Your task to perform on an android device: Open sound settings Image 0: 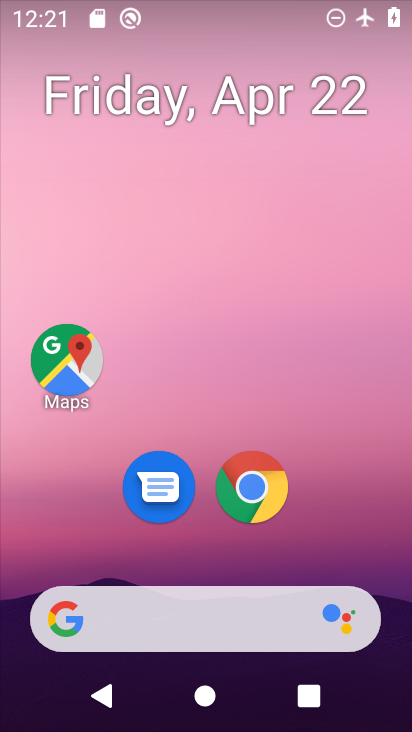
Step 0: drag from (337, 491) to (335, 115)
Your task to perform on an android device: Open sound settings Image 1: 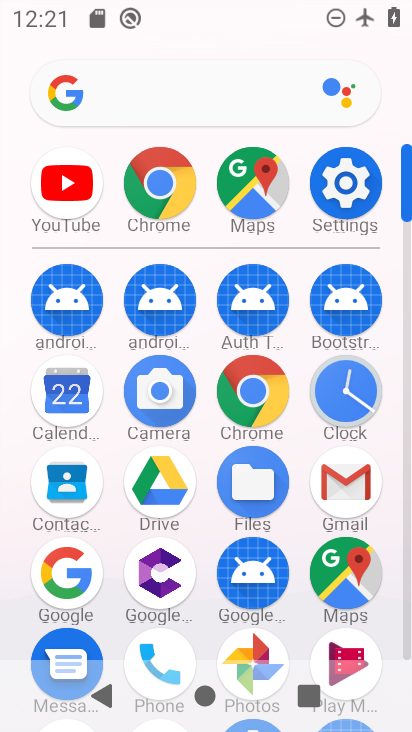
Step 1: click (342, 196)
Your task to perform on an android device: Open sound settings Image 2: 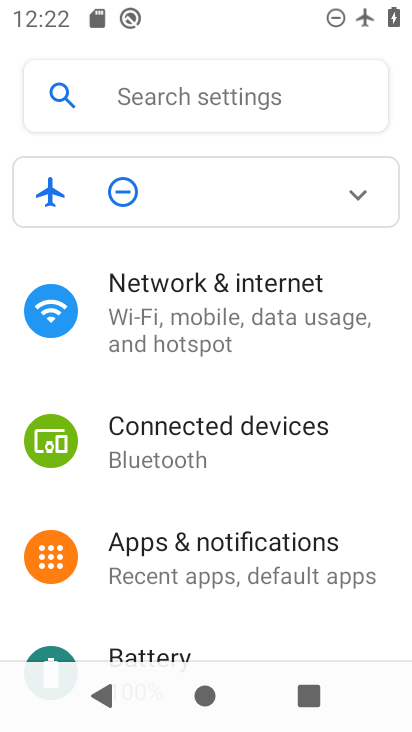
Step 2: drag from (322, 583) to (333, 280)
Your task to perform on an android device: Open sound settings Image 3: 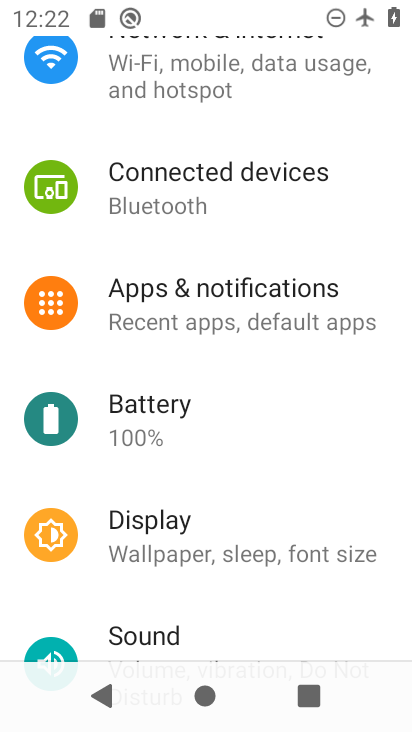
Step 3: drag from (236, 558) to (280, 297)
Your task to perform on an android device: Open sound settings Image 4: 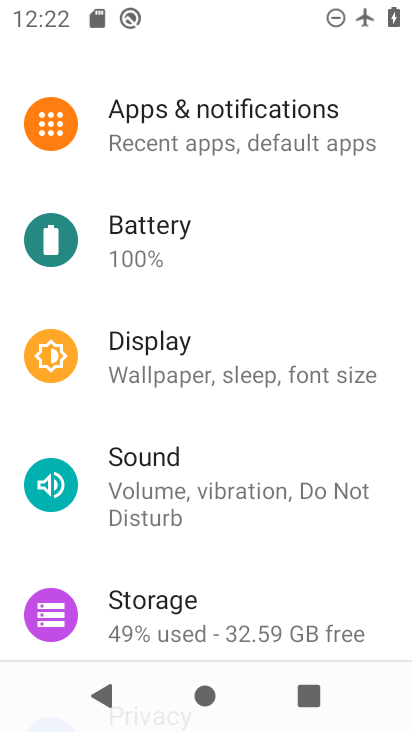
Step 4: click (204, 468)
Your task to perform on an android device: Open sound settings Image 5: 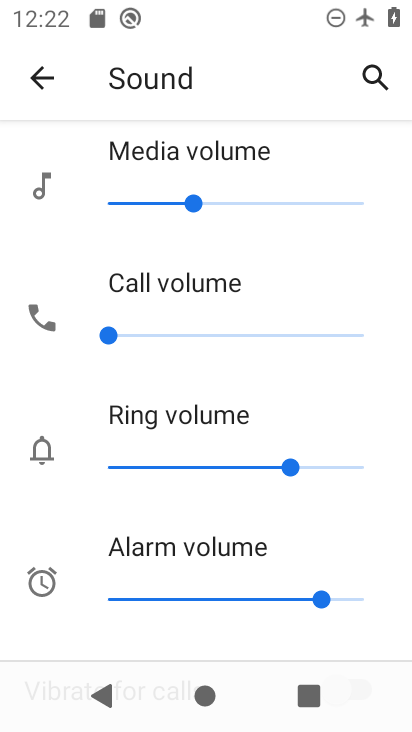
Step 5: task complete